Your task to perform on an android device: turn pop-ups off in chrome Image 0: 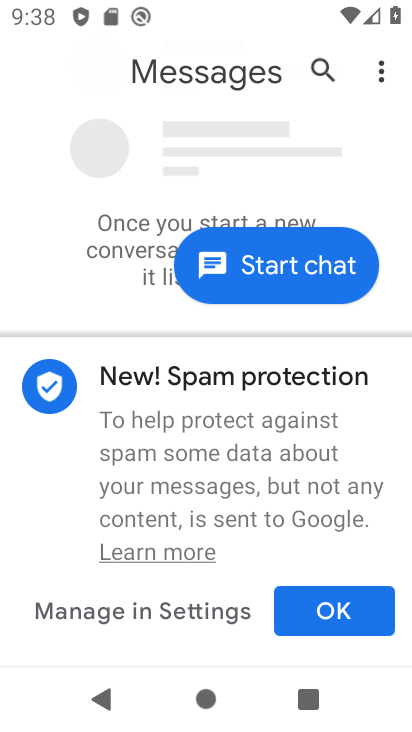
Step 0: press home button
Your task to perform on an android device: turn pop-ups off in chrome Image 1: 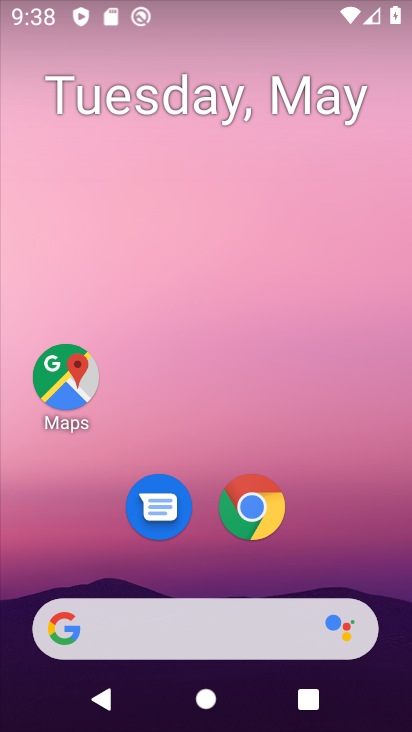
Step 1: drag from (376, 556) to (295, 13)
Your task to perform on an android device: turn pop-ups off in chrome Image 2: 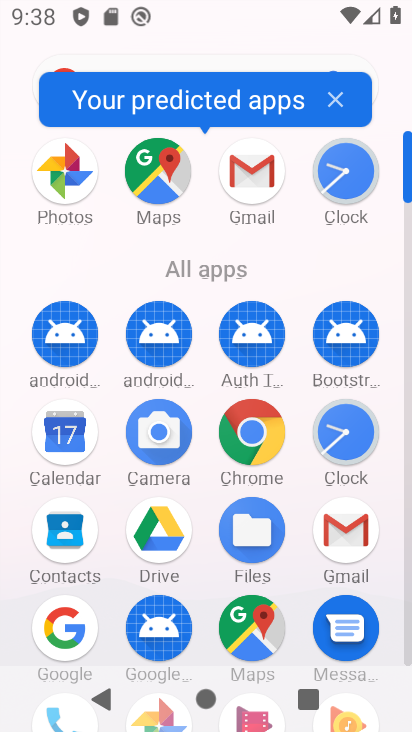
Step 2: click (267, 434)
Your task to perform on an android device: turn pop-ups off in chrome Image 3: 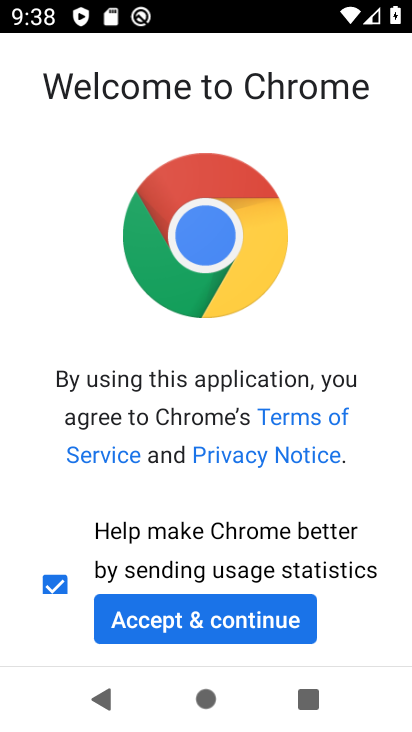
Step 3: click (279, 614)
Your task to perform on an android device: turn pop-ups off in chrome Image 4: 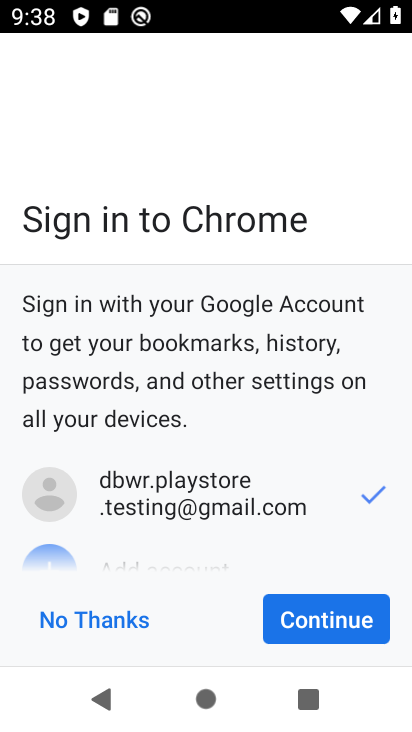
Step 4: click (293, 620)
Your task to perform on an android device: turn pop-ups off in chrome Image 5: 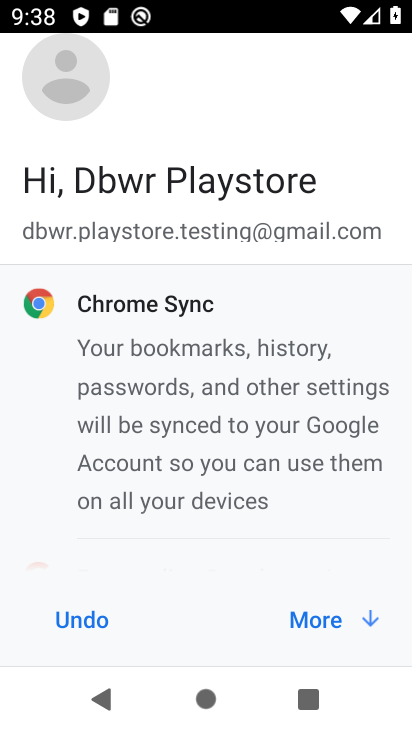
Step 5: click (293, 620)
Your task to perform on an android device: turn pop-ups off in chrome Image 6: 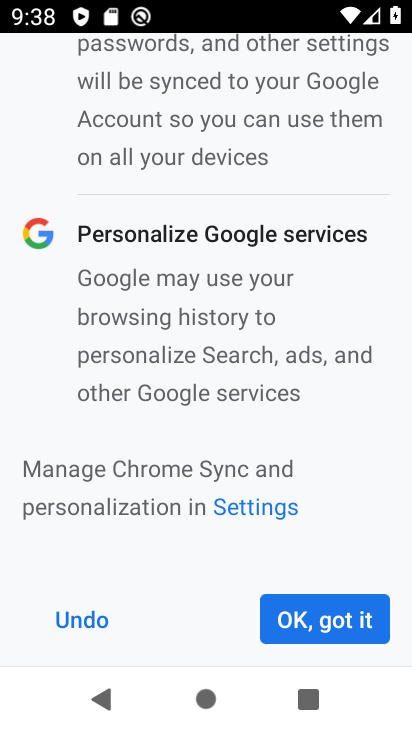
Step 6: click (293, 620)
Your task to perform on an android device: turn pop-ups off in chrome Image 7: 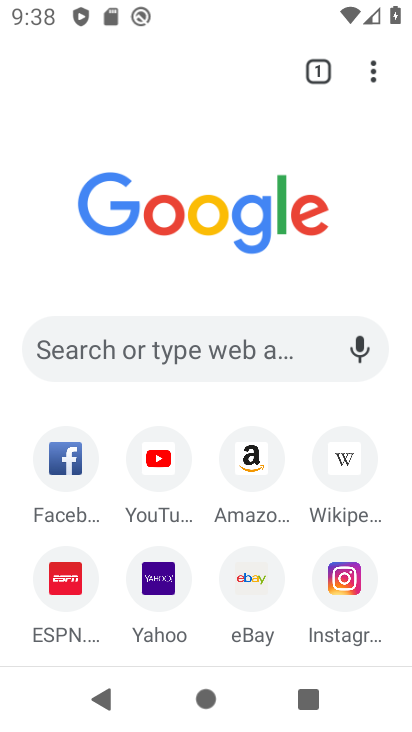
Step 7: click (372, 82)
Your task to perform on an android device: turn pop-ups off in chrome Image 8: 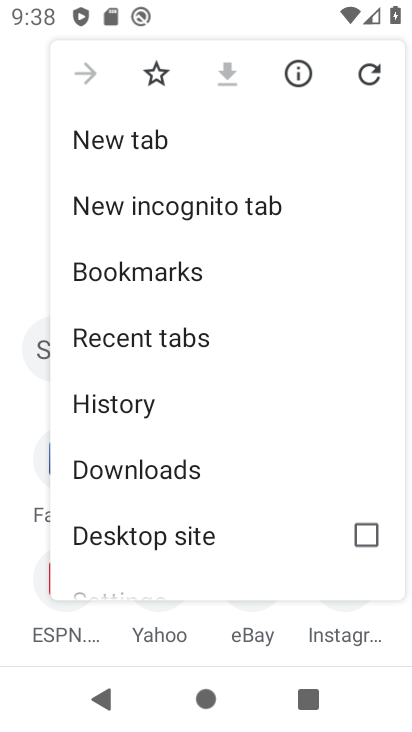
Step 8: drag from (289, 573) to (252, 110)
Your task to perform on an android device: turn pop-ups off in chrome Image 9: 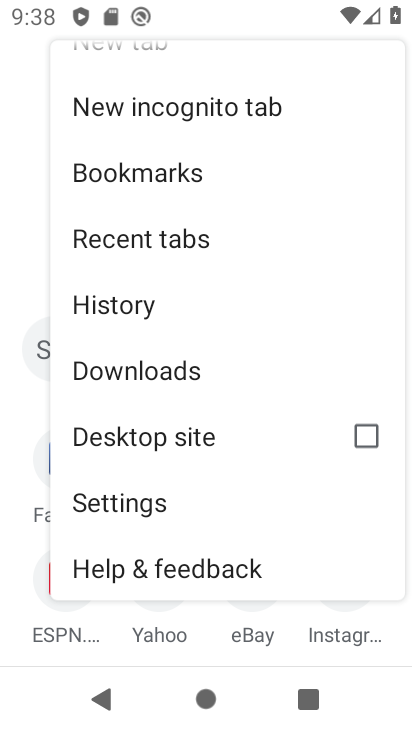
Step 9: click (199, 502)
Your task to perform on an android device: turn pop-ups off in chrome Image 10: 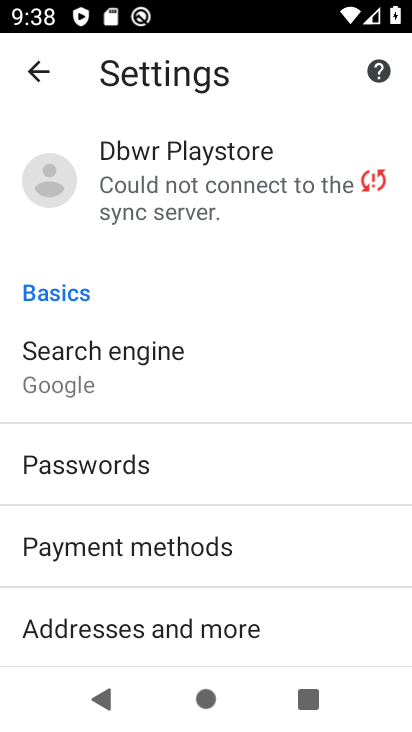
Step 10: drag from (288, 604) to (306, 94)
Your task to perform on an android device: turn pop-ups off in chrome Image 11: 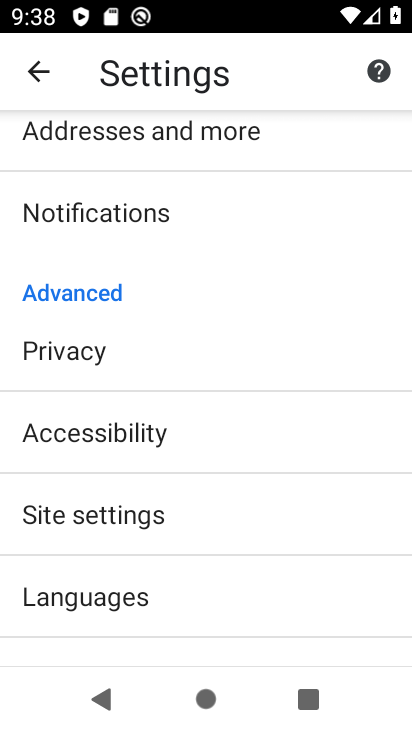
Step 11: click (281, 509)
Your task to perform on an android device: turn pop-ups off in chrome Image 12: 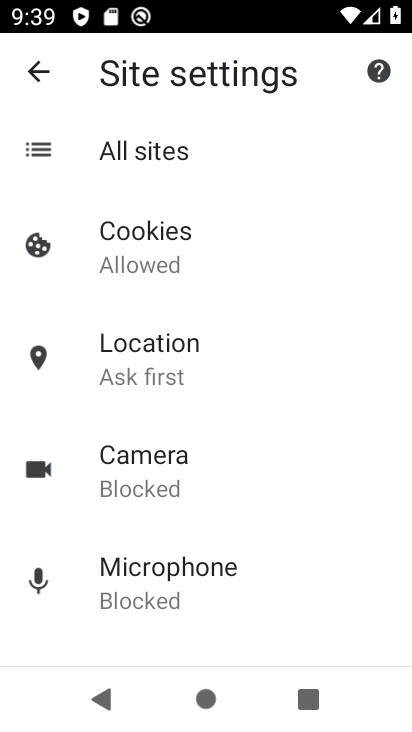
Step 12: drag from (296, 600) to (271, 180)
Your task to perform on an android device: turn pop-ups off in chrome Image 13: 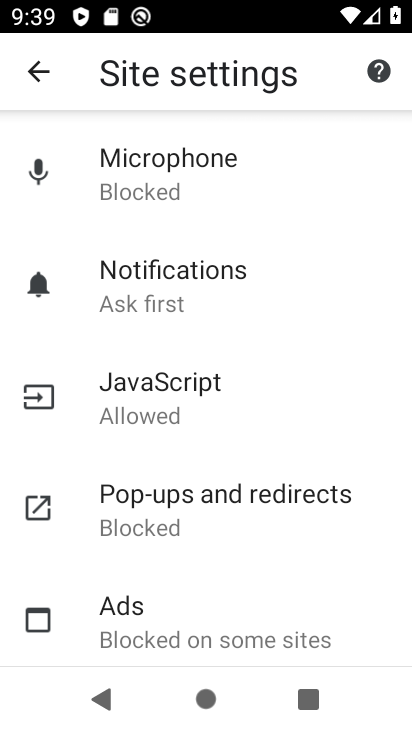
Step 13: click (270, 520)
Your task to perform on an android device: turn pop-ups off in chrome Image 14: 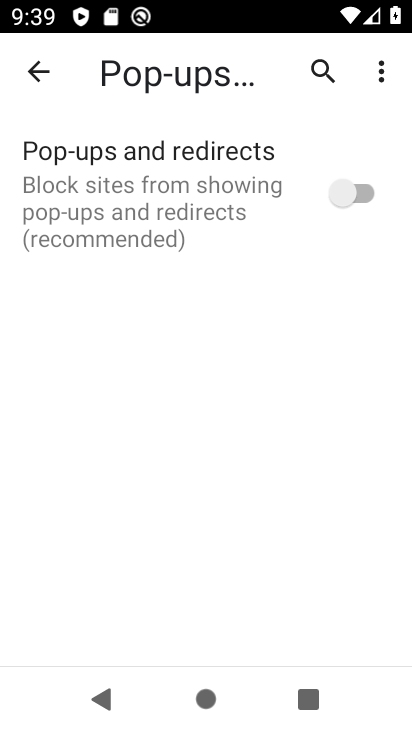
Step 14: task complete